Your task to perform on an android device: install app "Duolingo: language lessons" Image 0: 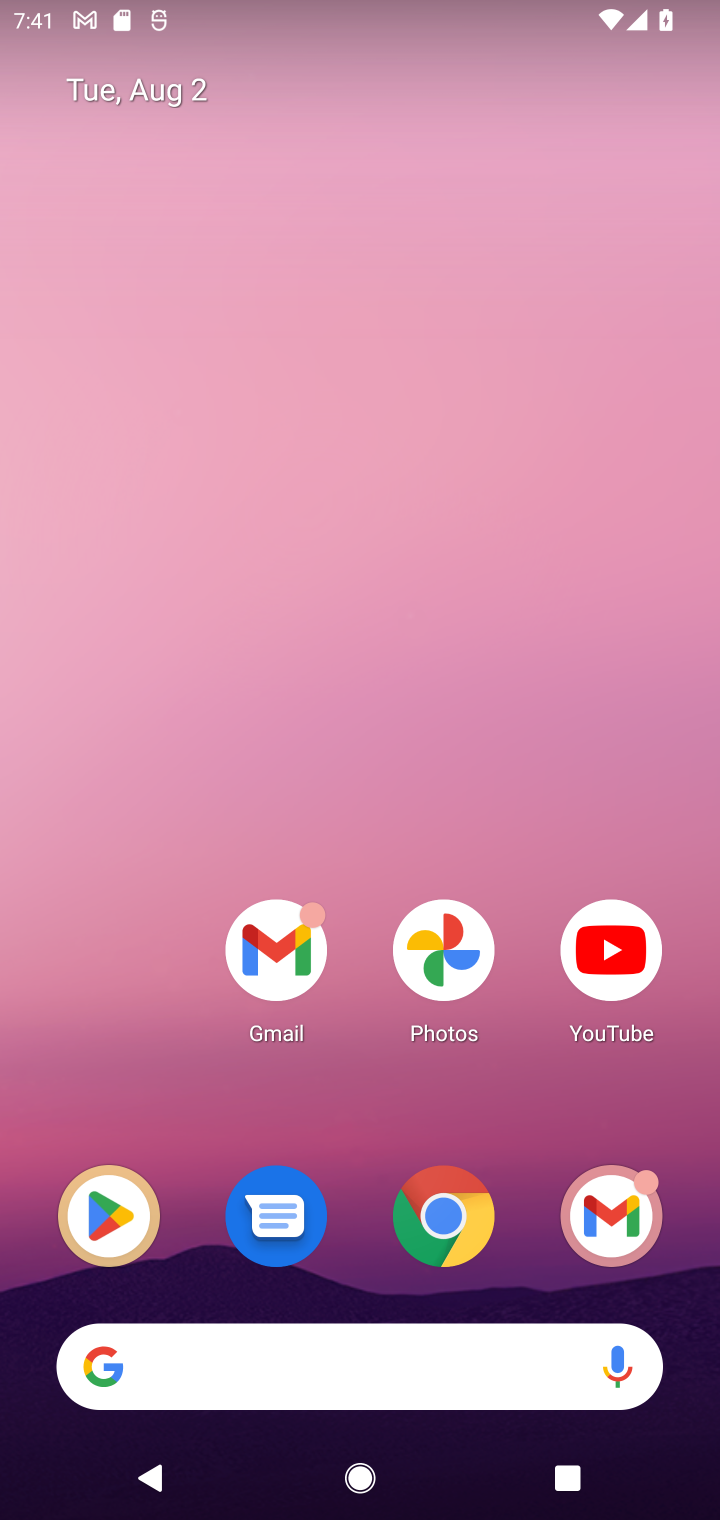
Step 0: press home button
Your task to perform on an android device: install app "Duolingo: language lessons" Image 1: 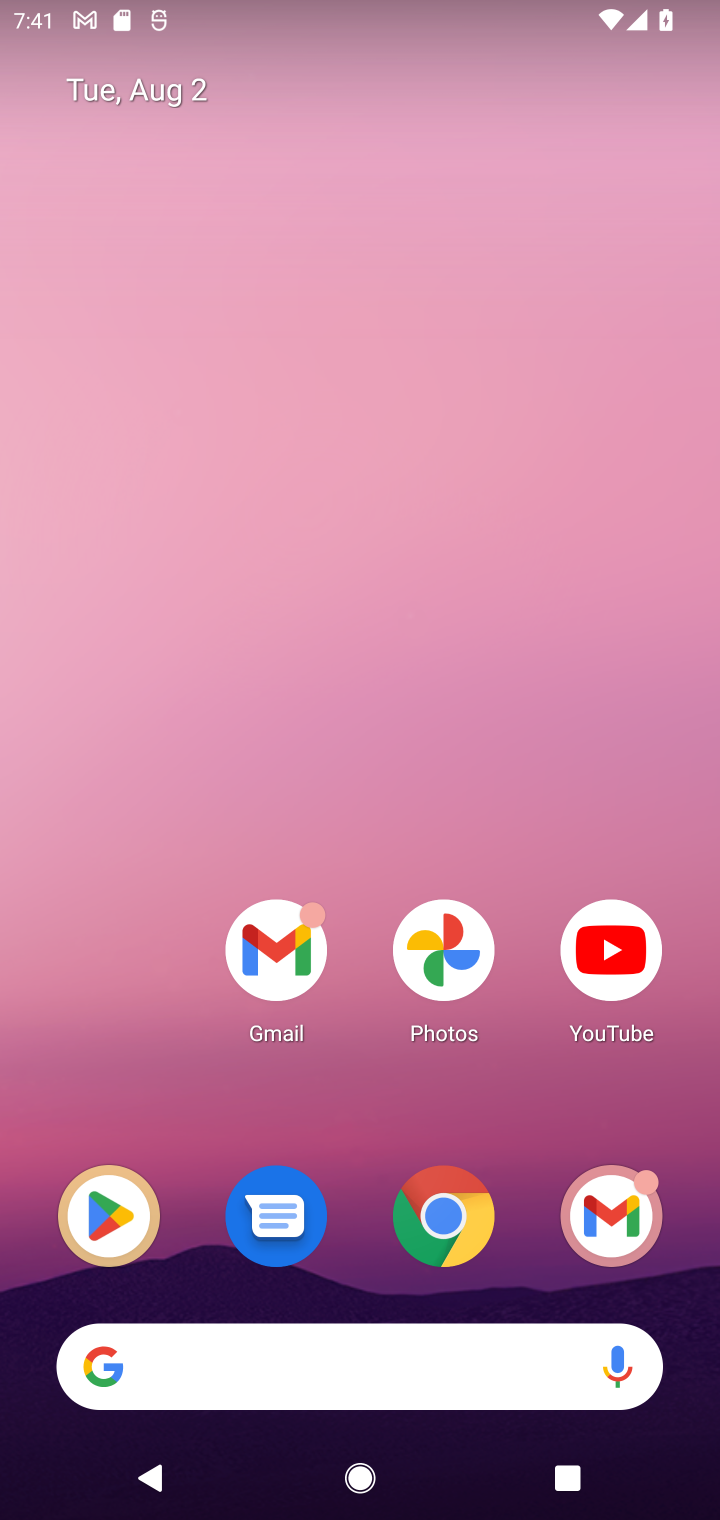
Step 1: click (106, 1219)
Your task to perform on an android device: install app "Duolingo: language lessons" Image 2: 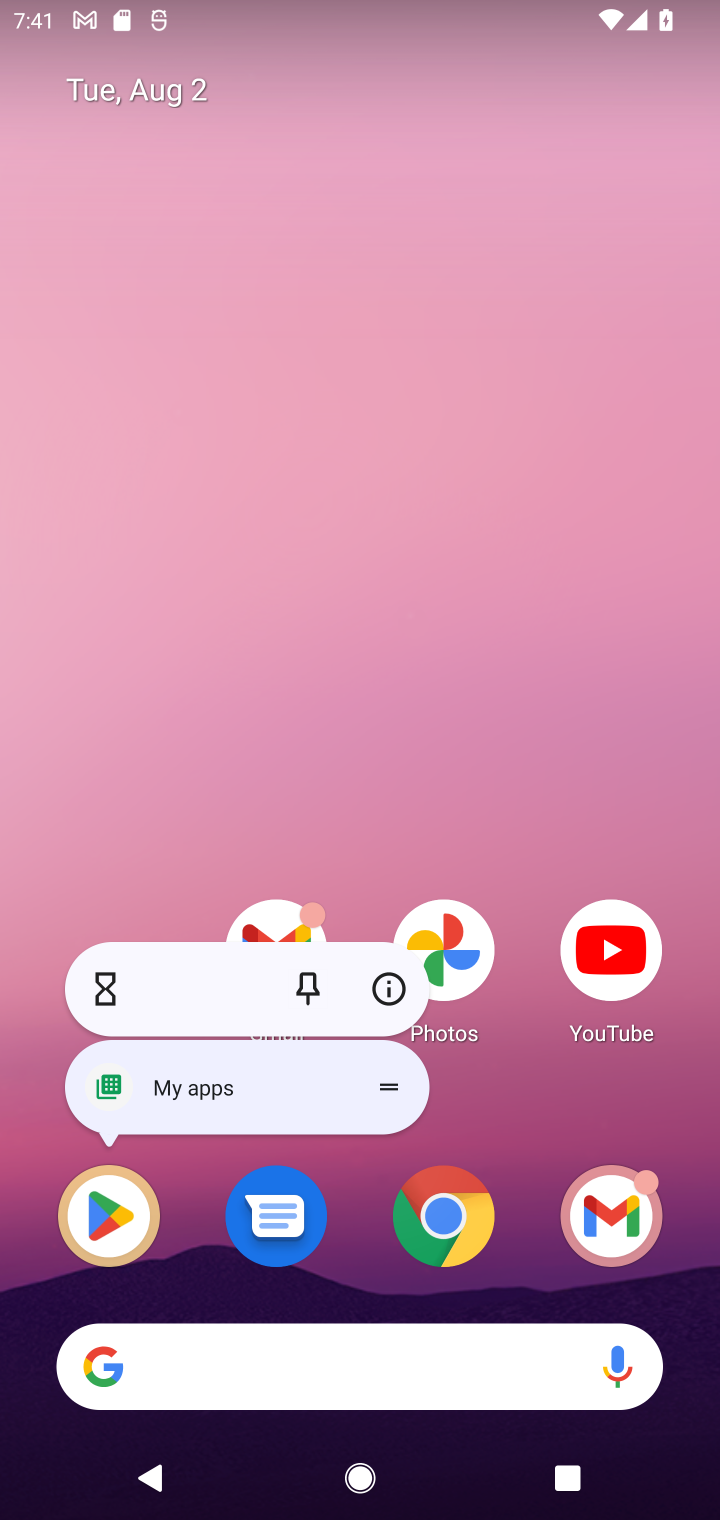
Step 2: click (106, 1219)
Your task to perform on an android device: install app "Duolingo: language lessons" Image 3: 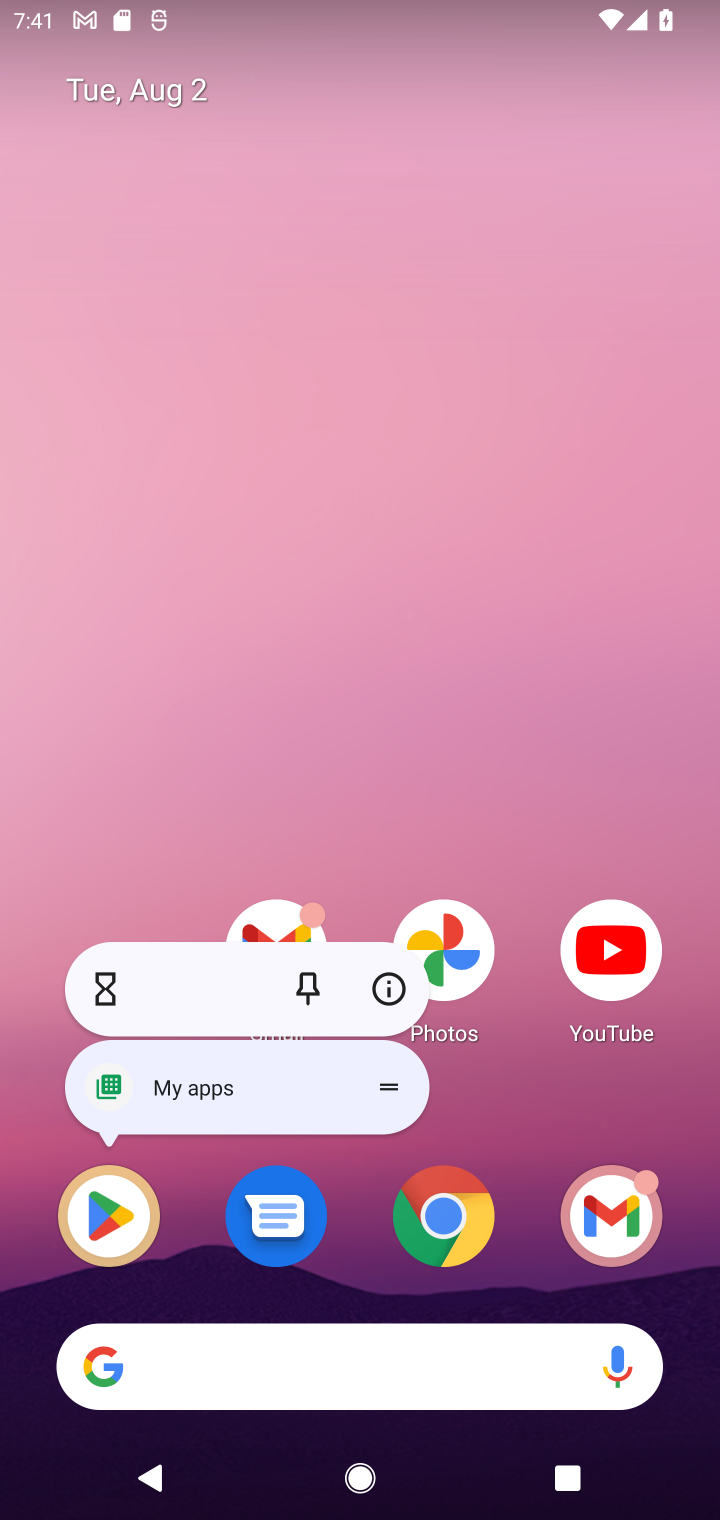
Step 3: click (95, 1221)
Your task to perform on an android device: install app "Duolingo: language lessons" Image 4: 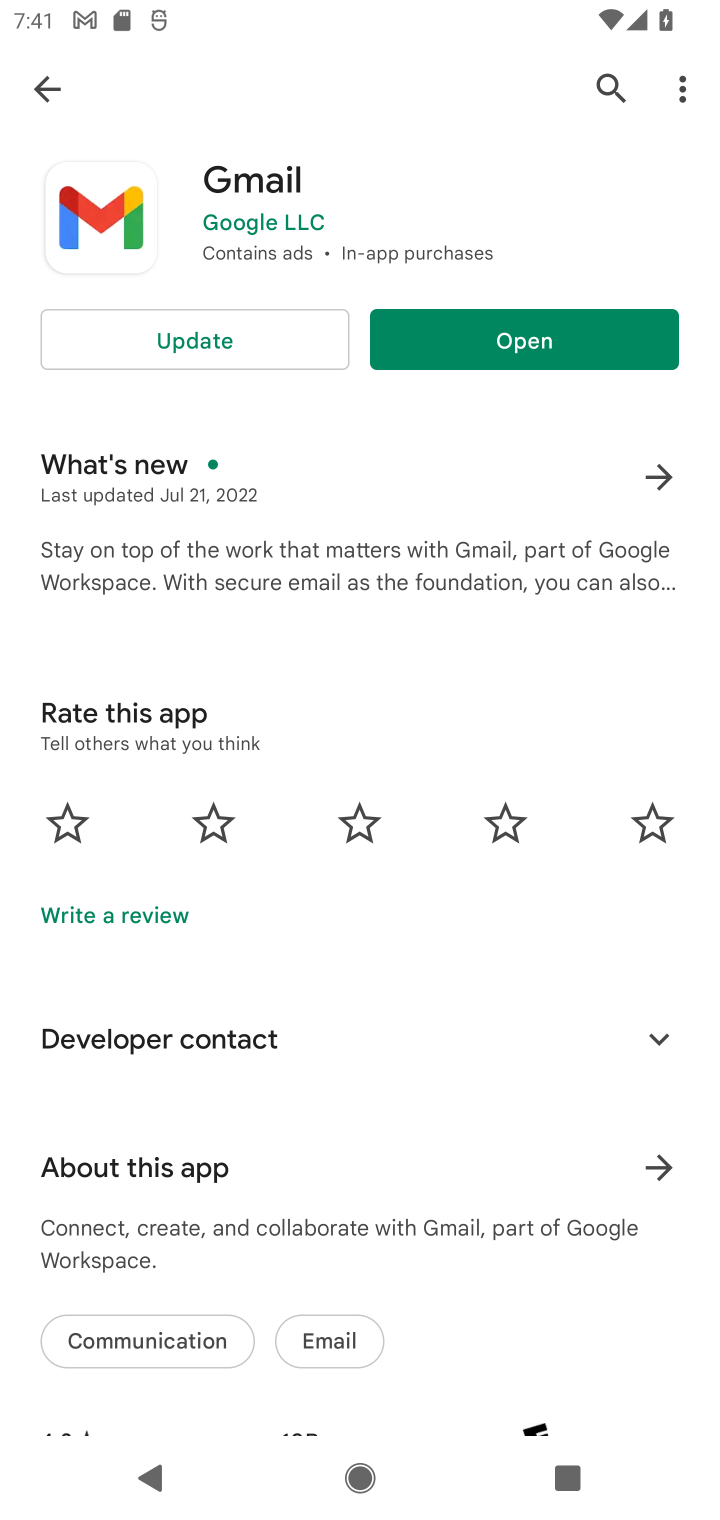
Step 4: click (598, 74)
Your task to perform on an android device: install app "Duolingo: language lessons" Image 5: 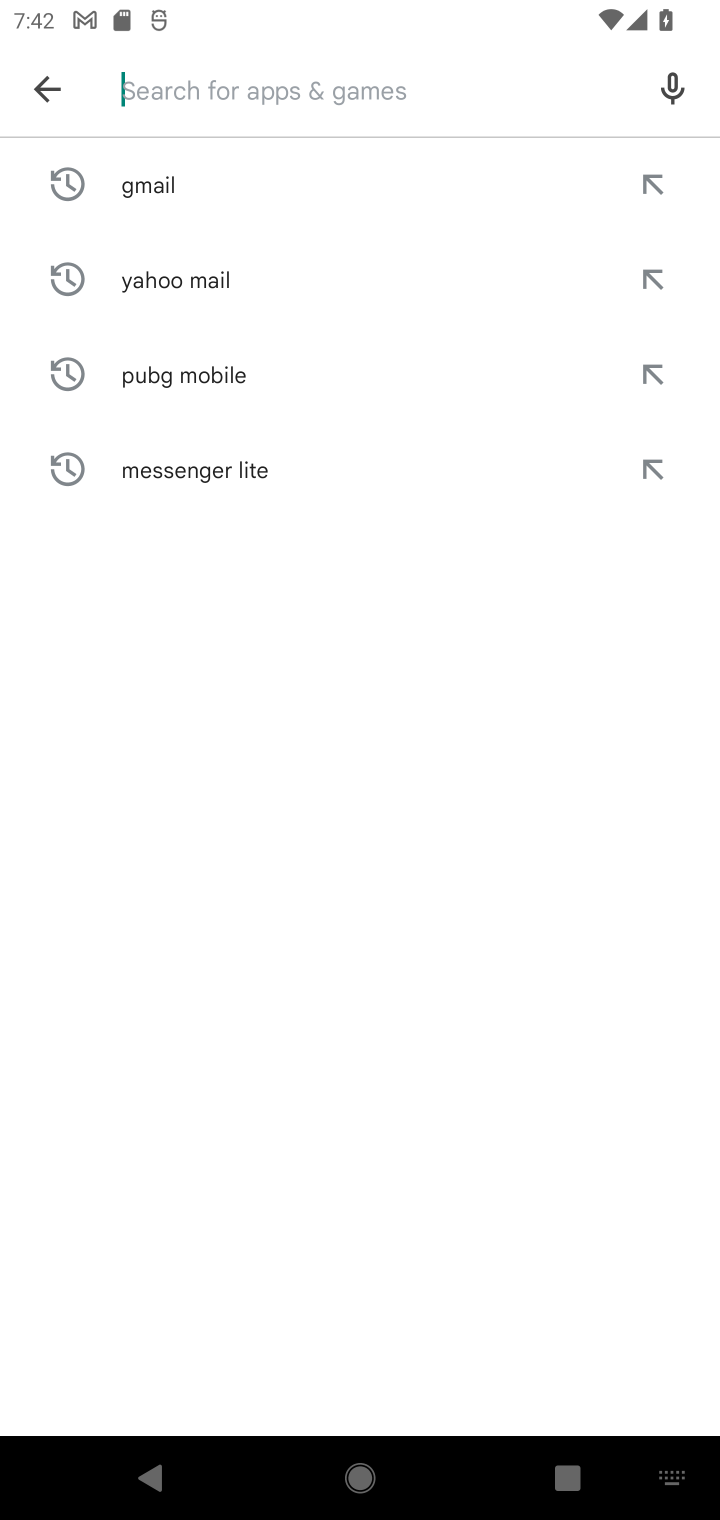
Step 5: type "Duolingo: language lessons"
Your task to perform on an android device: install app "Duolingo: language lessons" Image 6: 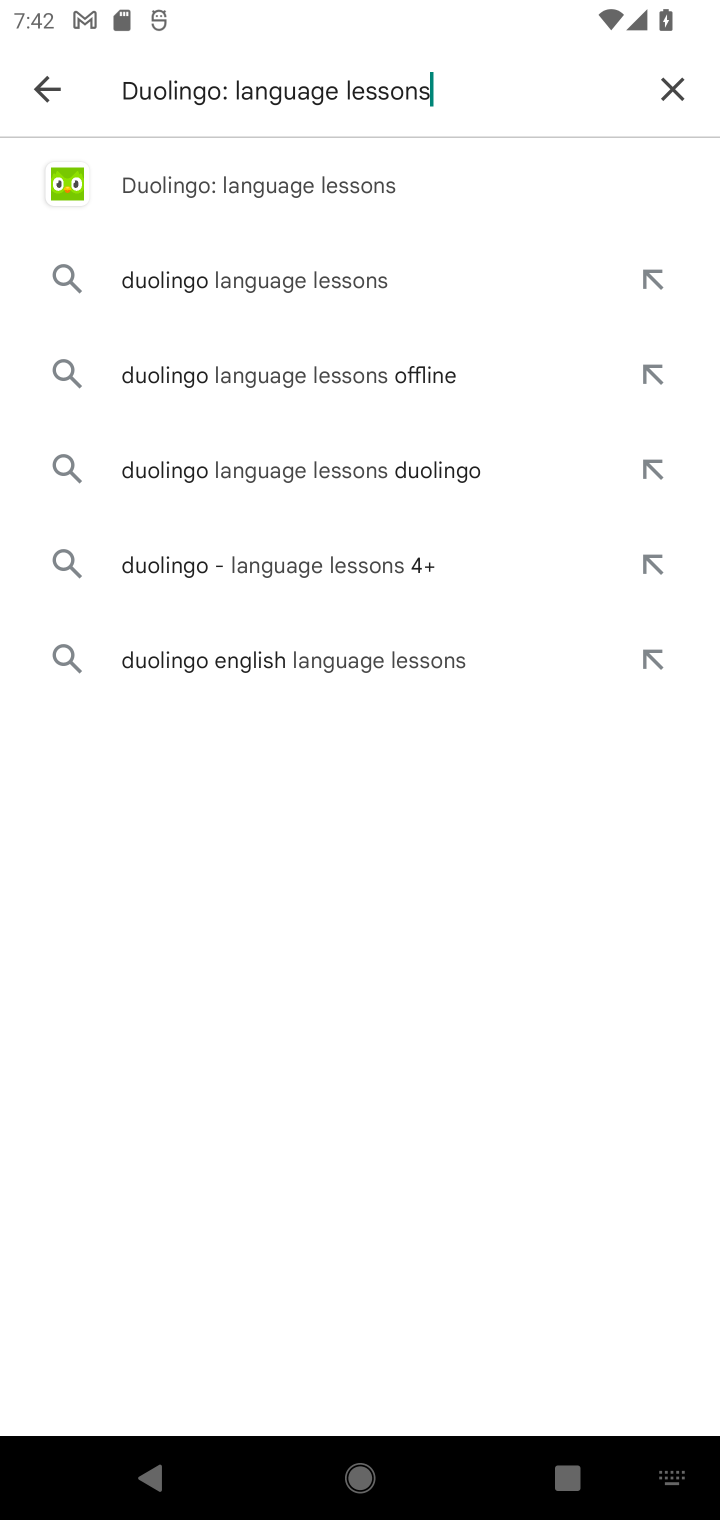
Step 6: click (341, 188)
Your task to perform on an android device: install app "Duolingo: language lessons" Image 7: 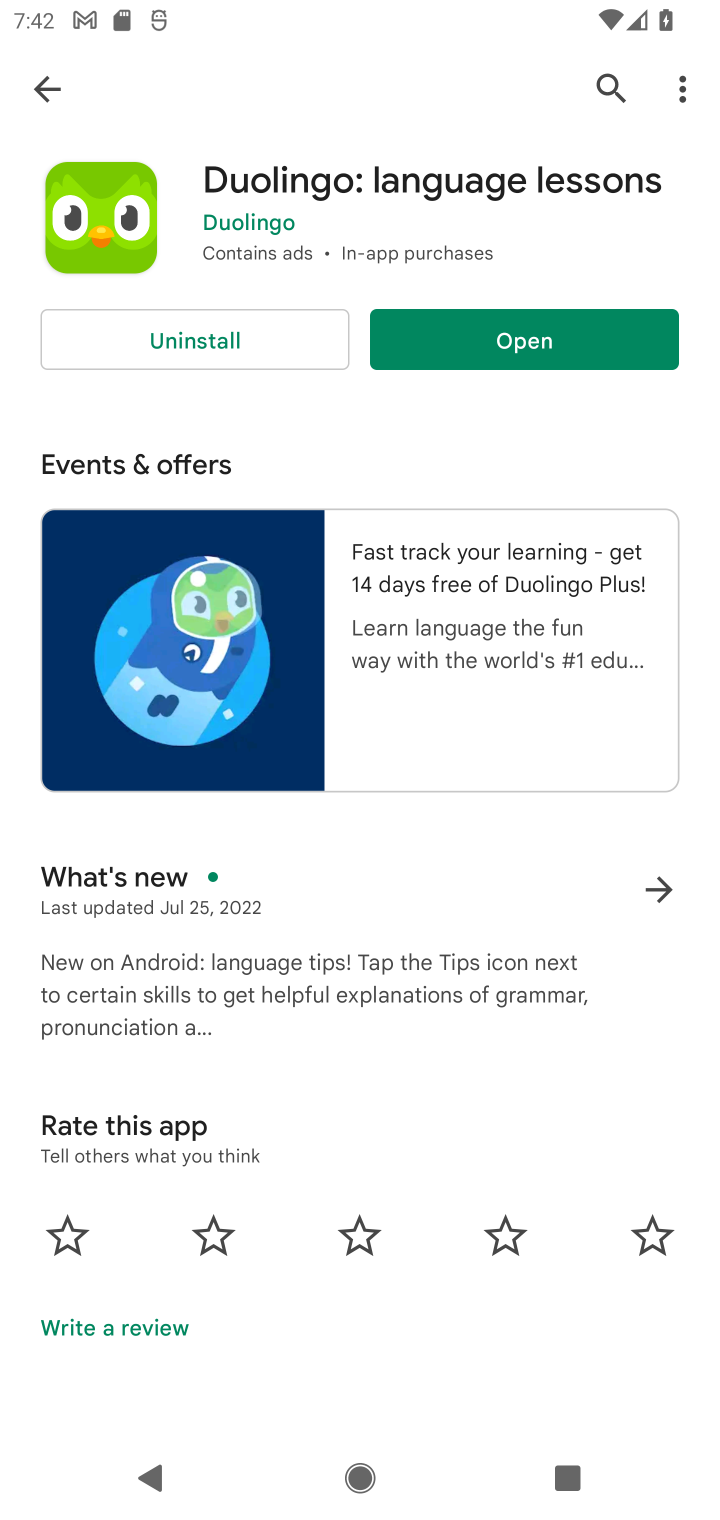
Step 7: task complete